Your task to perform on an android device: check google app version Image 0: 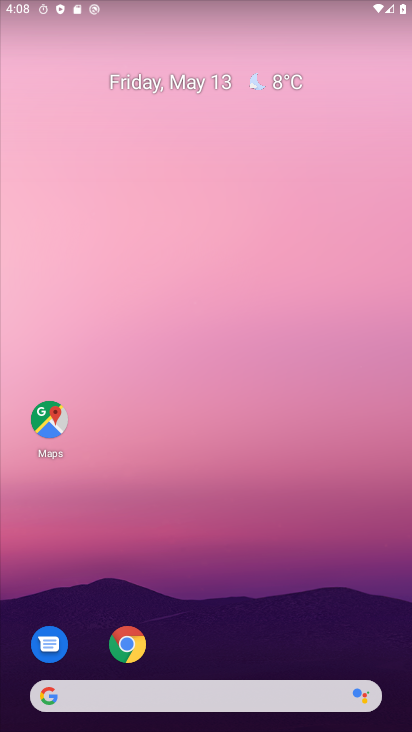
Step 0: drag from (234, 647) to (236, 193)
Your task to perform on an android device: check google app version Image 1: 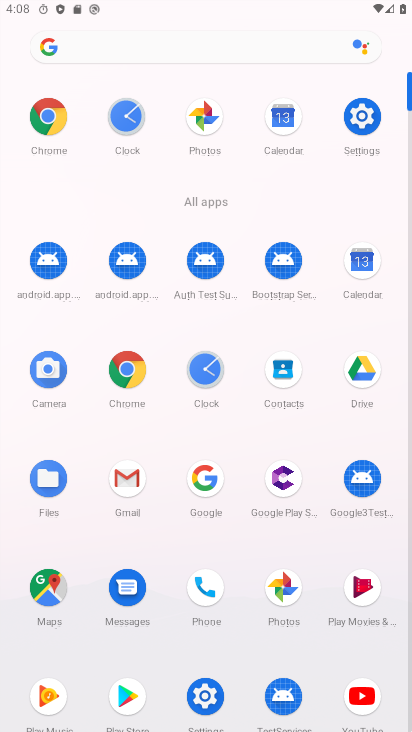
Step 1: click (218, 478)
Your task to perform on an android device: check google app version Image 2: 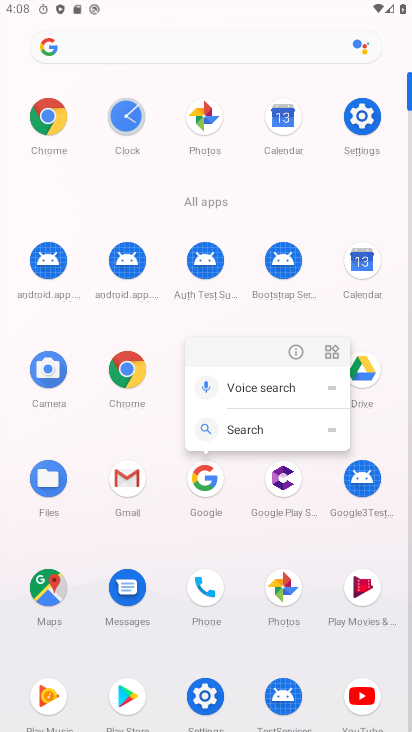
Step 2: click (294, 355)
Your task to perform on an android device: check google app version Image 3: 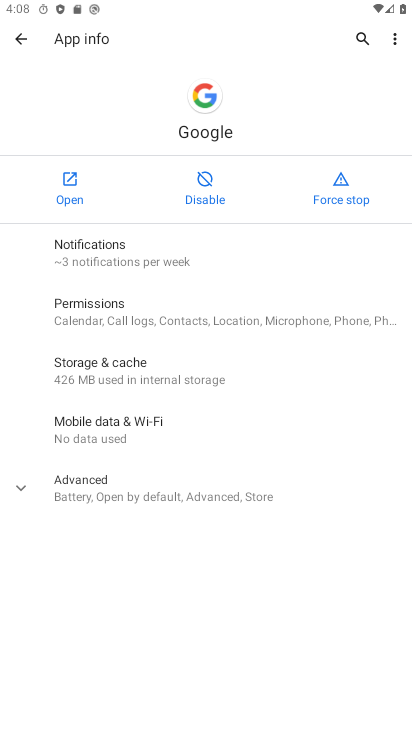
Step 3: click (217, 499)
Your task to perform on an android device: check google app version Image 4: 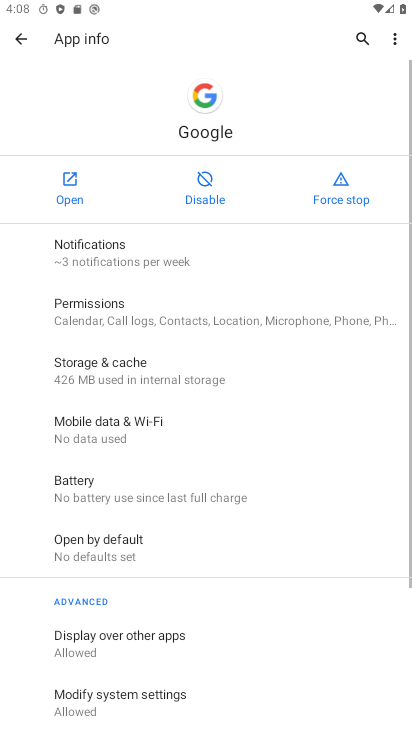
Step 4: task complete